Your task to perform on an android device: Go to Maps Image 0: 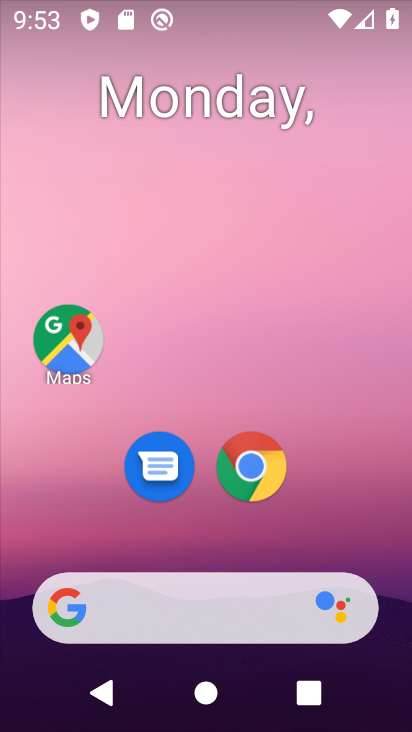
Step 0: click (66, 340)
Your task to perform on an android device: Go to Maps Image 1: 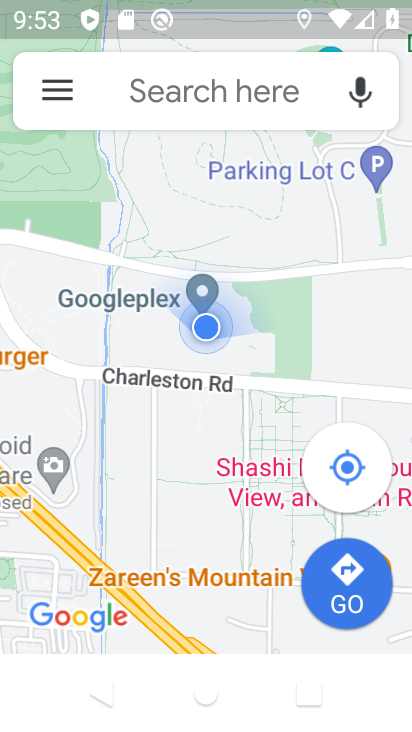
Step 1: task complete